Your task to perform on an android device: turn on sleep mode Image 0: 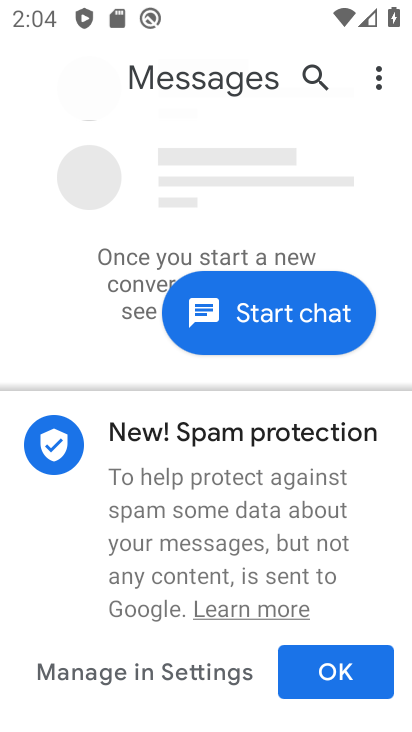
Step 0: press home button
Your task to perform on an android device: turn on sleep mode Image 1: 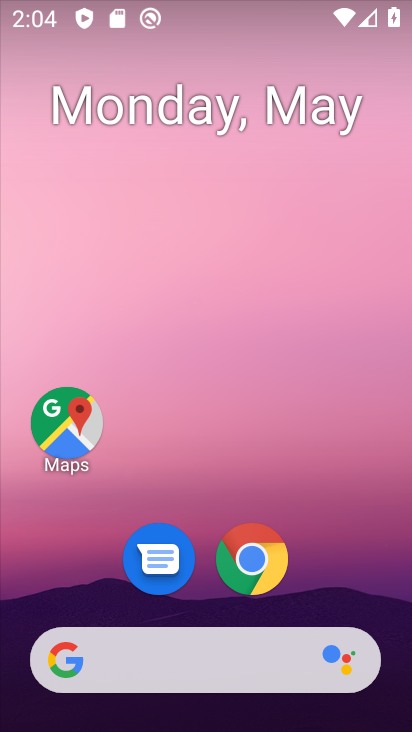
Step 1: drag from (207, 674) to (195, 74)
Your task to perform on an android device: turn on sleep mode Image 2: 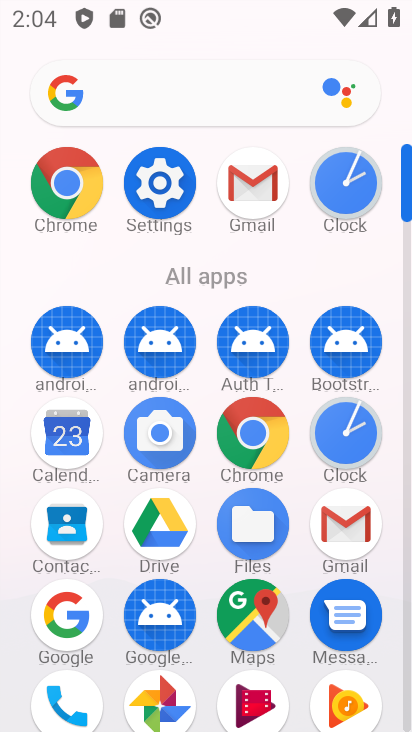
Step 2: click (153, 173)
Your task to perform on an android device: turn on sleep mode Image 3: 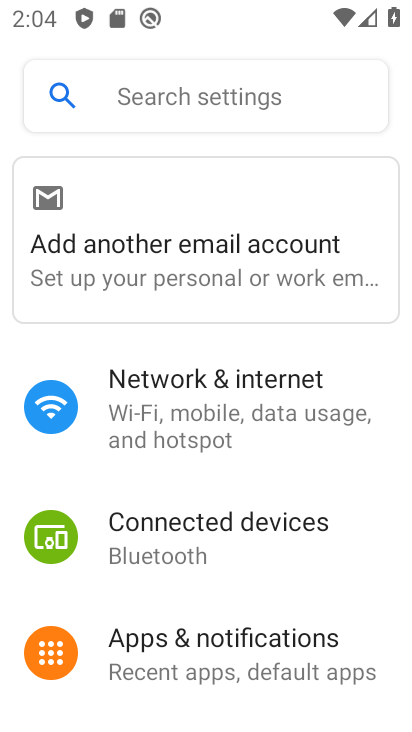
Step 3: click (149, 87)
Your task to perform on an android device: turn on sleep mode Image 4: 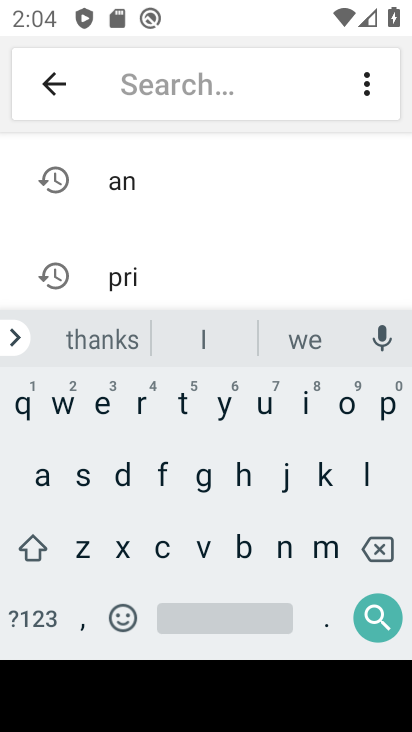
Step 4: click (78, 482)
Your task to perform on an android device: turn on sleep mode Image 5: 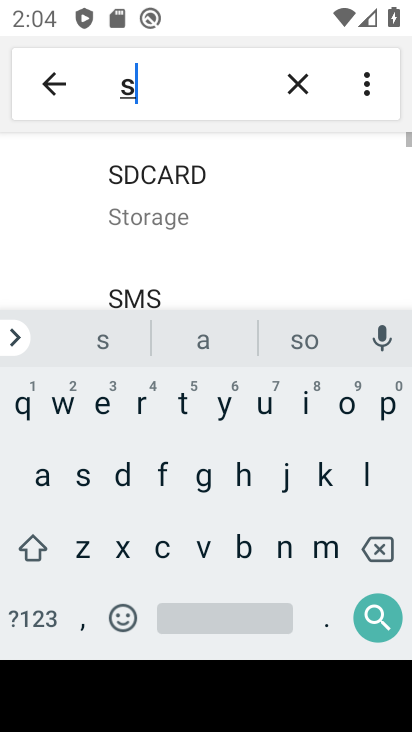
Step 5: click (367, 472)
Your task to perform on an android device: turn on sleep mode Image 6: 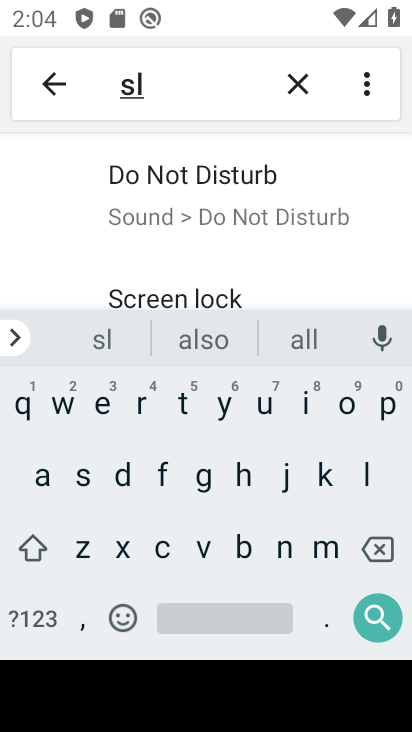
Step 6: click (185, 176)
Your task to perform on an android device: turn on sleep mode Image 7: 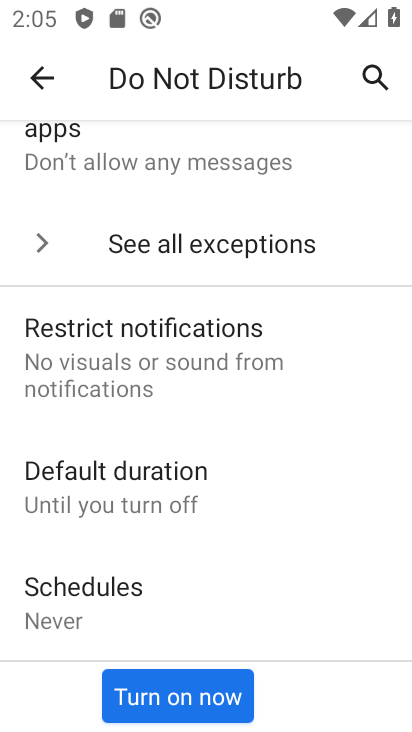
Step 7: task complete